Your task to perform on an android device: find photos in the google photos app Image 0: 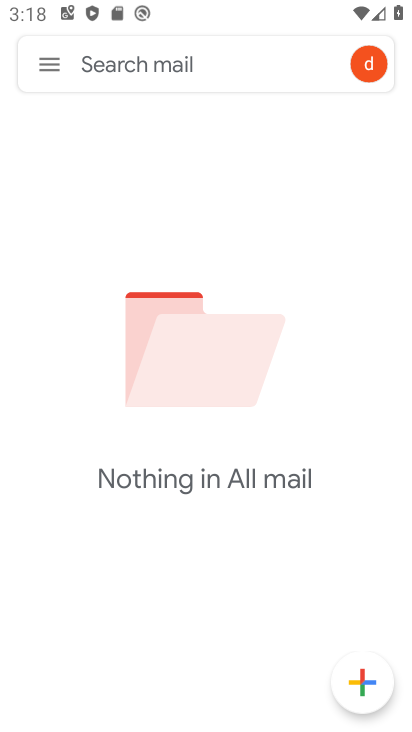
Step 0: press home button
Your task to perform on an android device: find photos in the google photos app Image 1: 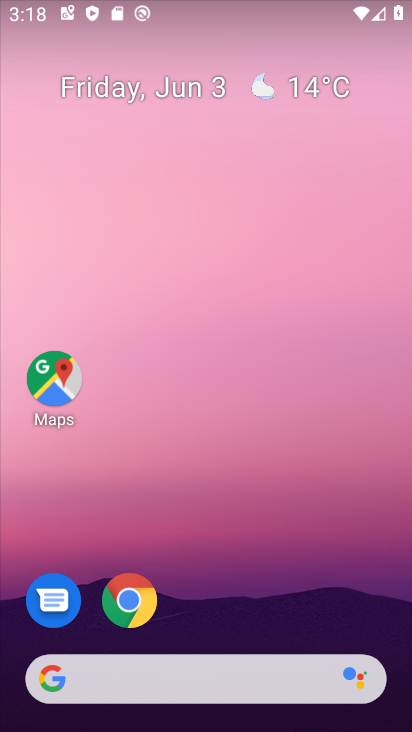
Step 1: drag from (226, 618) to (256, 179)
Your task to perform on an android device: find photos in the google photos app Image 2: 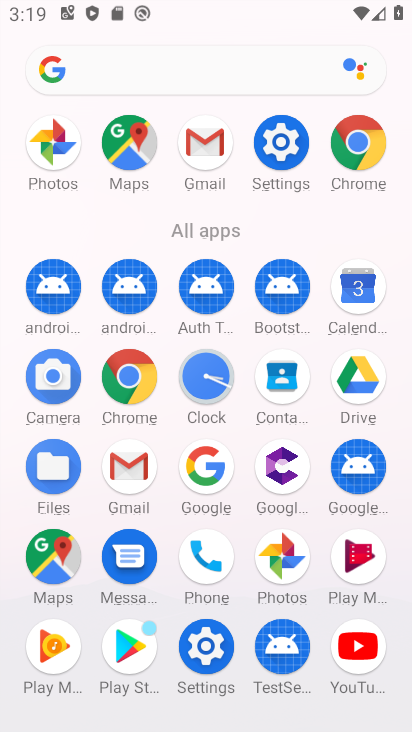
Step 2: click (40, 137)
Your task to perform on an android device: find photos in the google photos app Image 3: 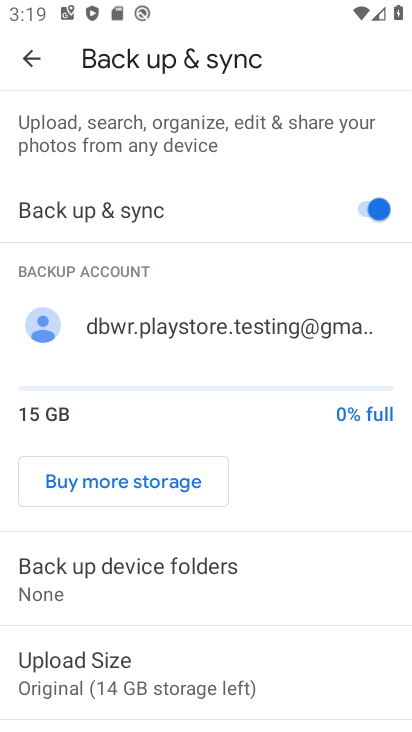
Step 3: click (33, 62)
Your task to perform on an android device: find photos in the google photos app Image 4: 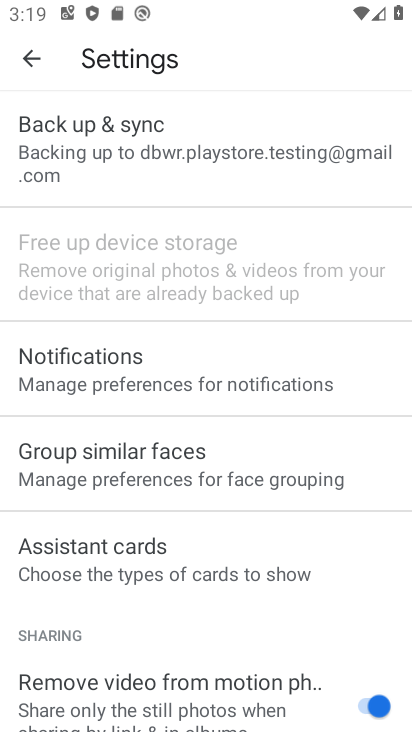
Step 4: click (33, 62)
Your task to perform on an android device: find photos in the google photos app Image 5: 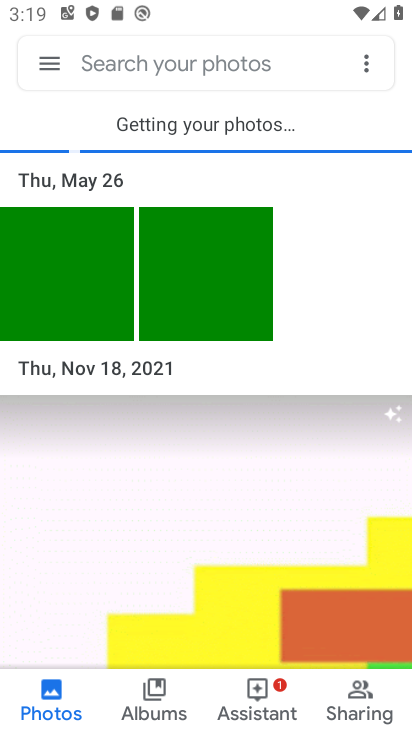
Step 5: task complete